Your task to perform on an android device: turn notification dots off Image 0: 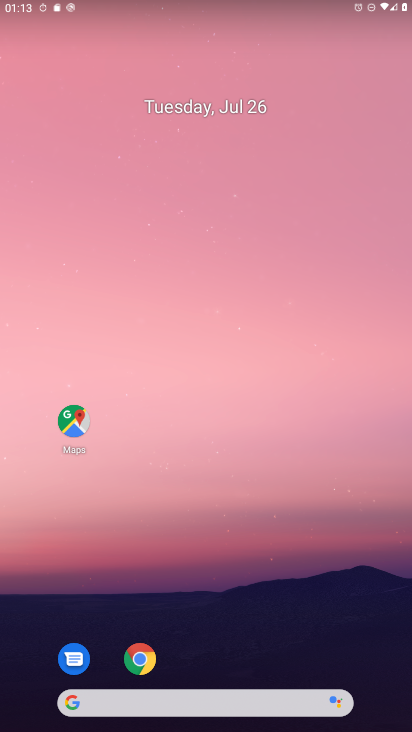
Step 0: drag from (243, 604) to (284, 92)
Your task to perform on an android device: turn notification dots off Image 1: 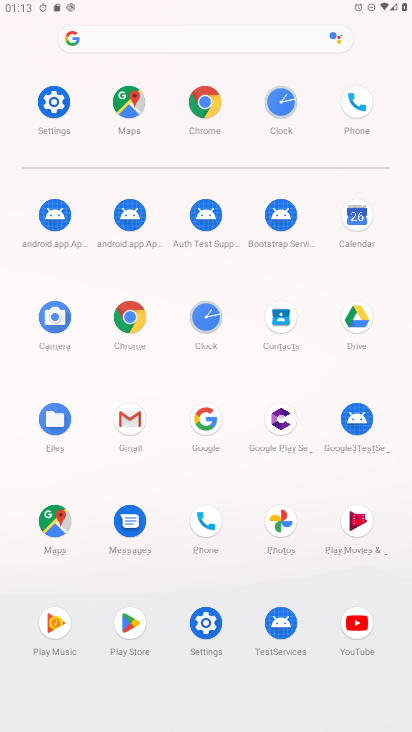
Step 1: click (193, 606)
Your task to perform on an android device: turn notification dots off Image 2: 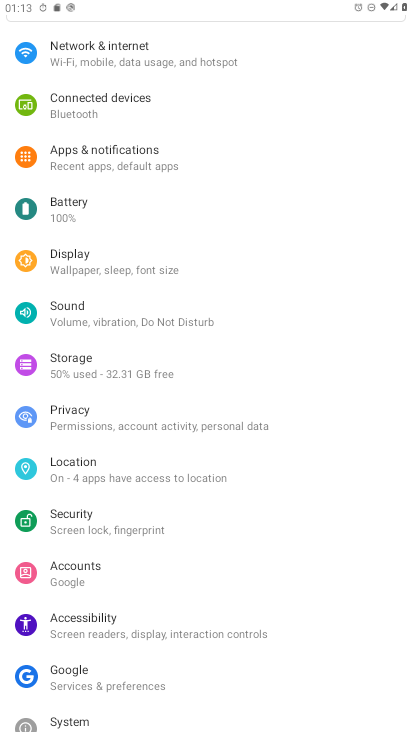
Step 2: click (81, 157)
Your task to perform on an android device: turn notification dots off Image 3: 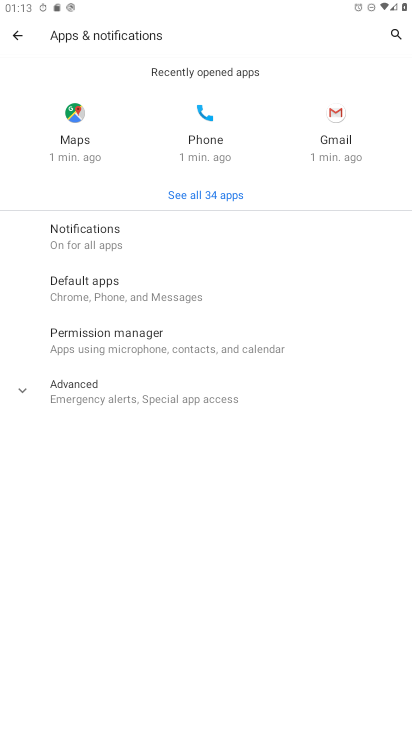
Step 3: click (82, 234)
Your task to perform on an android device: turn notification dots off Image 4: 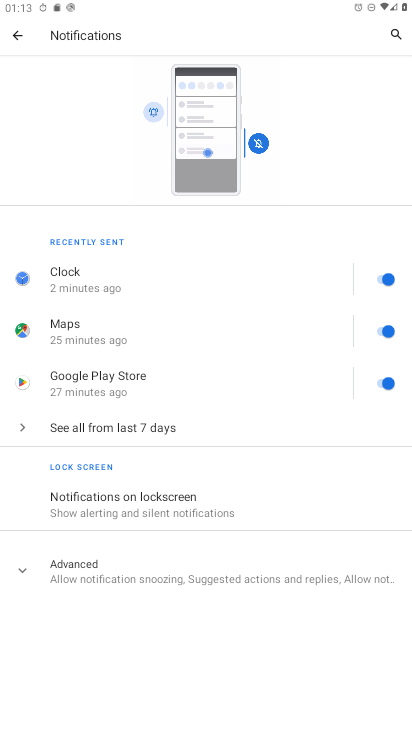
Step 4: click (165, 572)
Your task to perform on an android device: turn notification dots off Image 5: 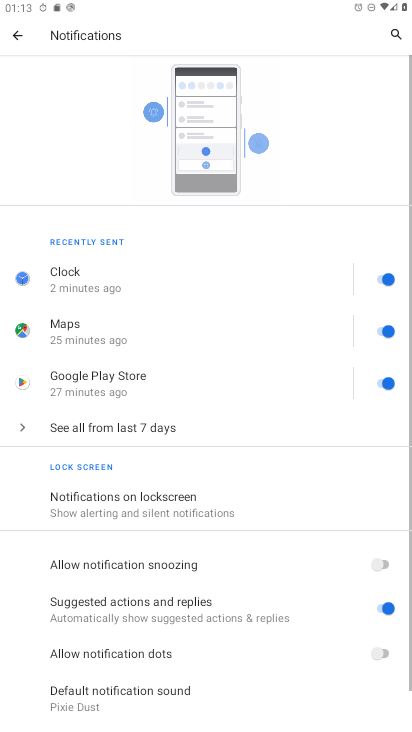
Step 5: task complete